Your task to perform on an android device: turn on the 24-hour format for clock Image 0: 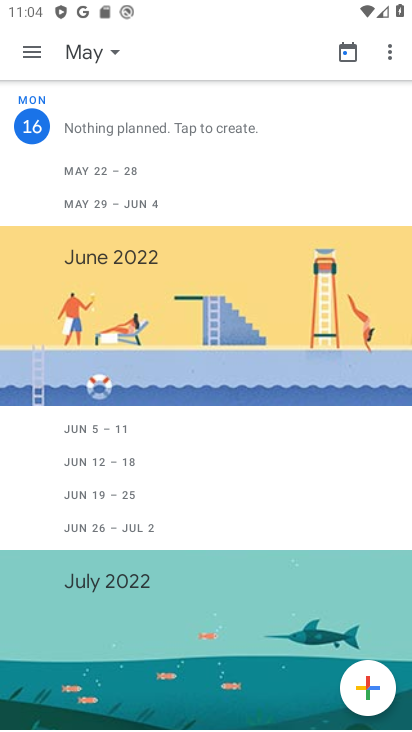
Step 0: press home button
Your task to perform on an android device: turn on the 24-hour format for clock Image 1: 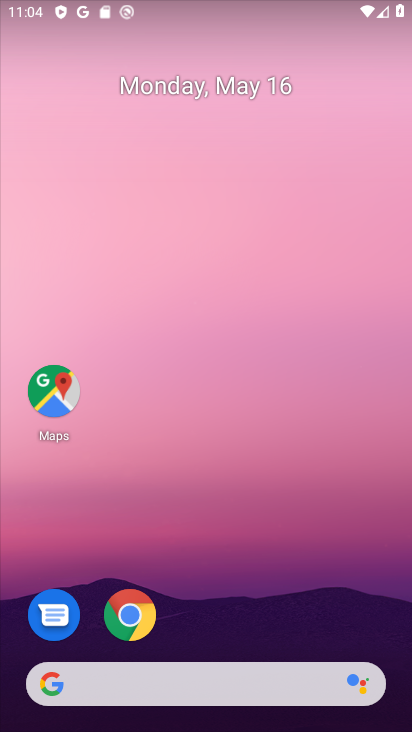
Step 1: drag from (204, 647) to (202, 5)
Your task to perform on an android device: turn on the 24-hour format for clock Image 2: 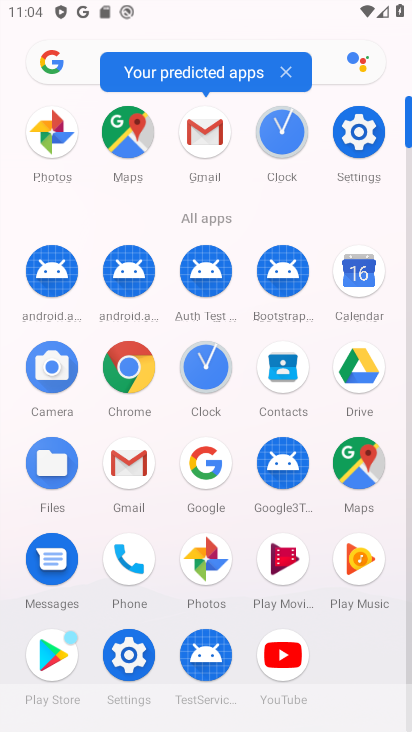
Step 2: click (194, 370)
Your task to perform on an android device: turn on the 24-hour format for clock Image 3: 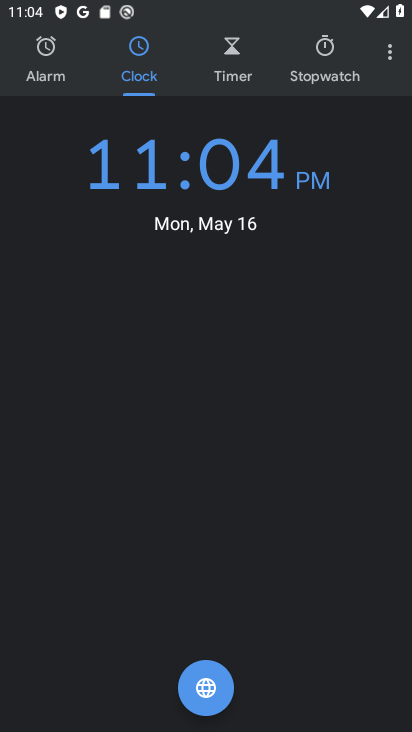
Step 3: click (390, 65)
Your task to perform on an android device: turn on the 24-hour format for clock Image 4: 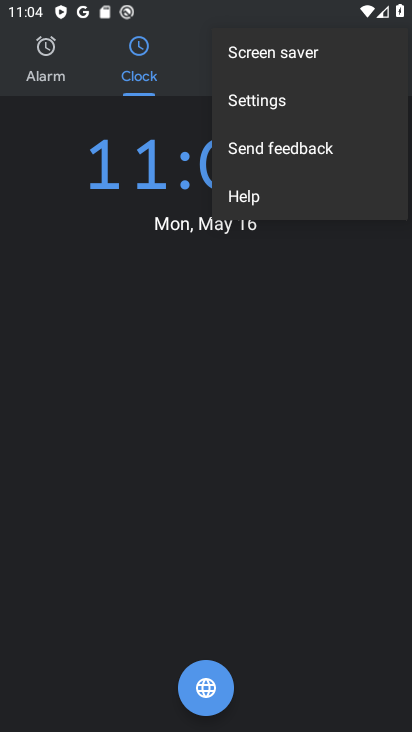
Step 4: click (252, 89)
Your task to perform on an android device: turn on the 24-hour format for clock Image 5: 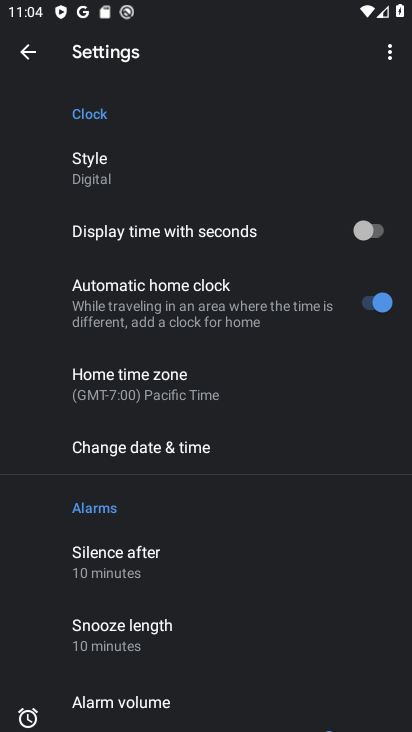
Step 5: click (113, 457)
Your task to perform on an android device: turn on the 24-hour format for clock Image 6: 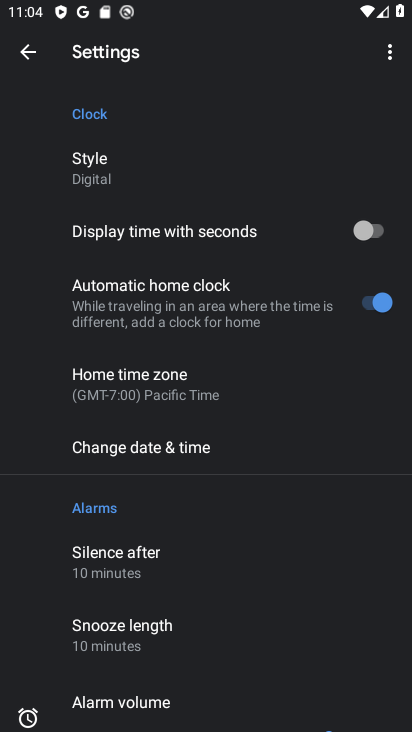
Step 6: click (110, 457)
Your task to perform on an android device: turn on the 24-hour format for clock Image 7: 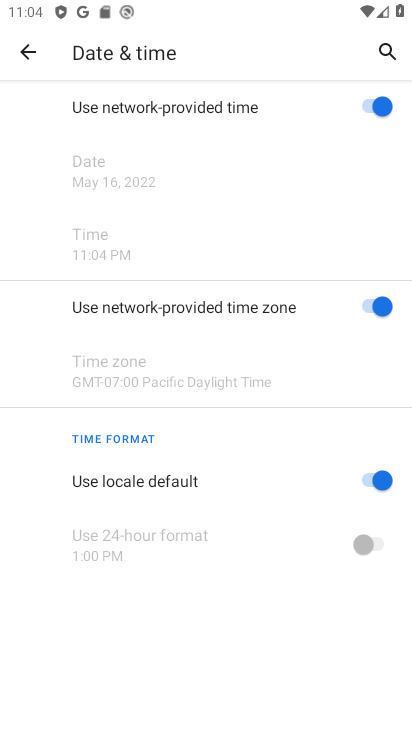
Step 7: click (382, 483)
Your task to perform on an android device: turn on the 24-hour format for clock Image 8: 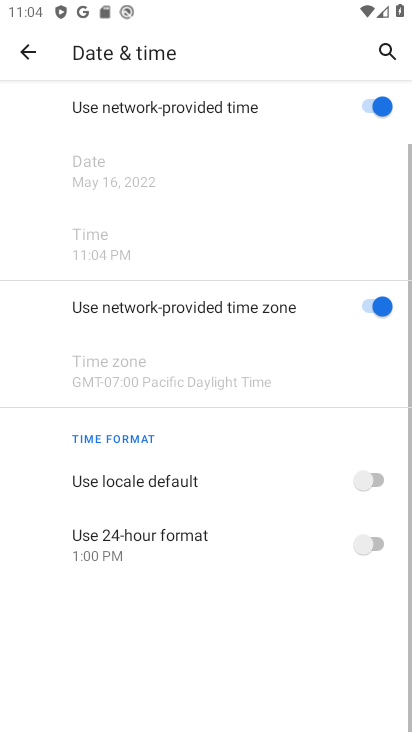
Step 8: click (376, 540)
Your task to perform on an android device: turn on the 24-hour format for clock Image 9: 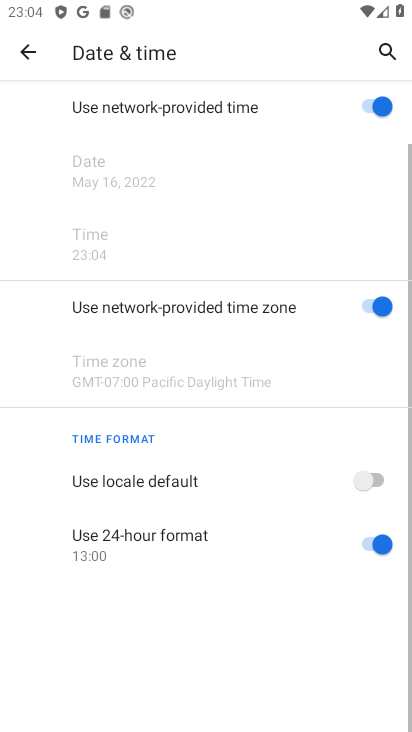
Step 9: task complete